Your task to perform on an android device: set the stopwatch Image 0: 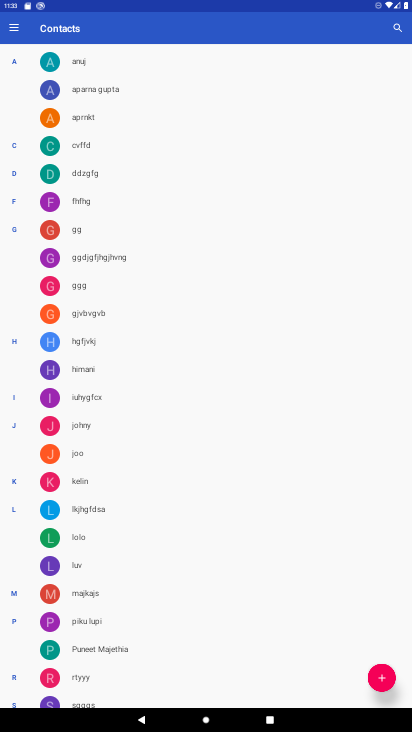
Step 0: press home button
Your task to perform on an android device: set the stopwatch Image 1: 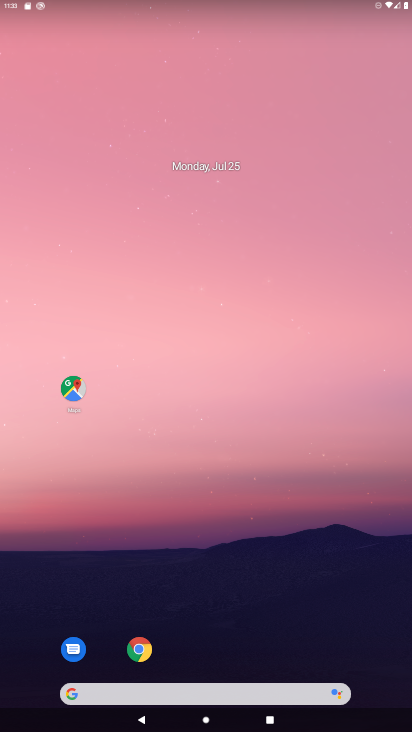
Step 1: drag from (391, 680) to (334, 206)
Your task to perform on an android device: set the stopwatch Image 2: 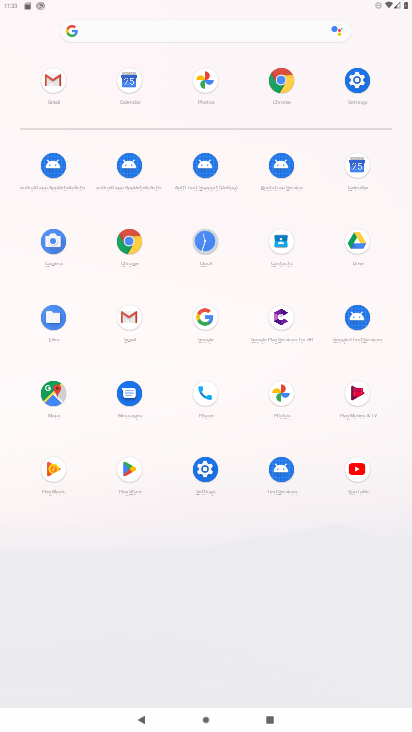
Step 2: click (202, 241)
Your task to perform on an android device: set the stopwatch Image 3: 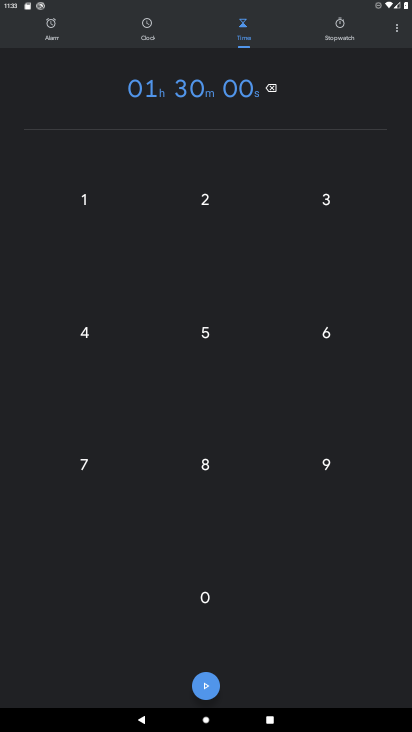
Step 3: click (333, 31)
Your task to perform on an android device: set the stopwatch Image 4: 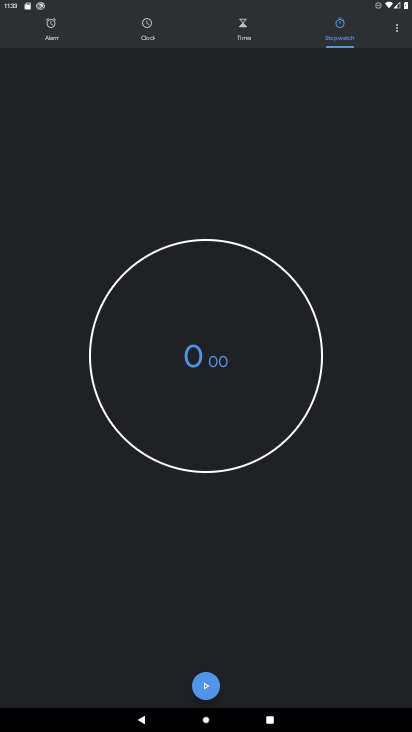
Step 4: task complete